Your task to perform on an android device: toggle javascript in the chrome app Image 0: 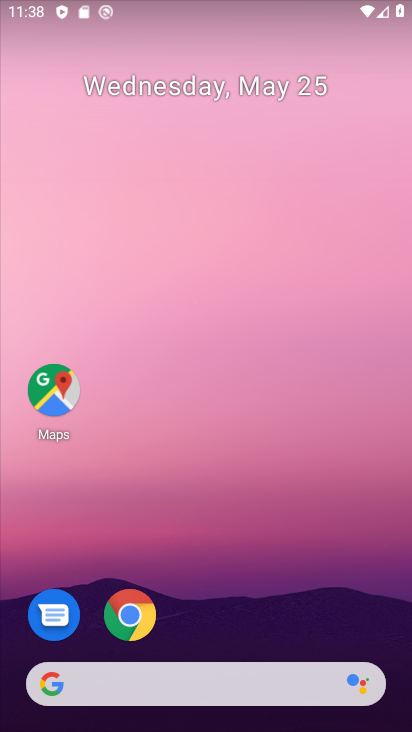
Step 0: drag from (387, 642) to (296, 17)
Your task to perform on an android device: toggle javascript in the chrome app Image 1: 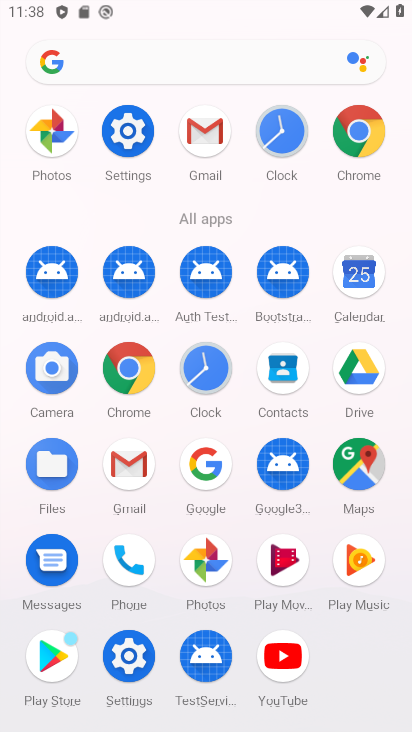
Step 1: click (368, 122)
Your task to perform on an android device: toggle javascript in the chrome app Image 2: 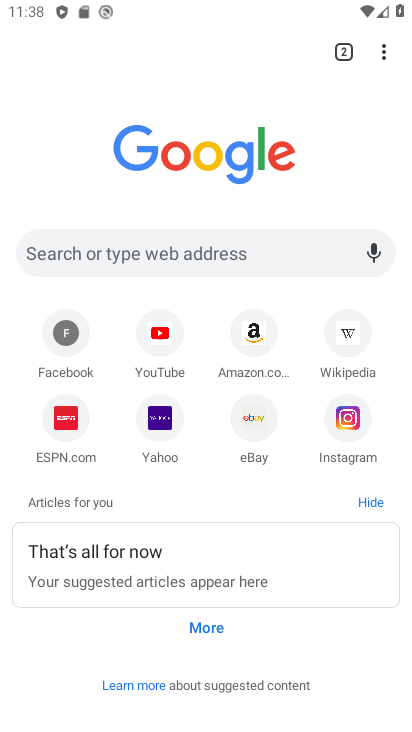
Step 2: click (382, 49)
Your task to perform on an android device: toggle javascript in the chrome app Image 3: 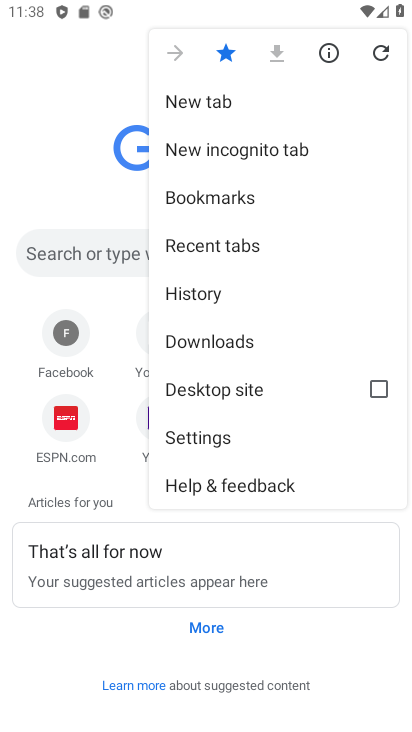
Step 3: click (230, 446)
Your task to perform on an android device: toggle javascript in the chrome app Image 4: 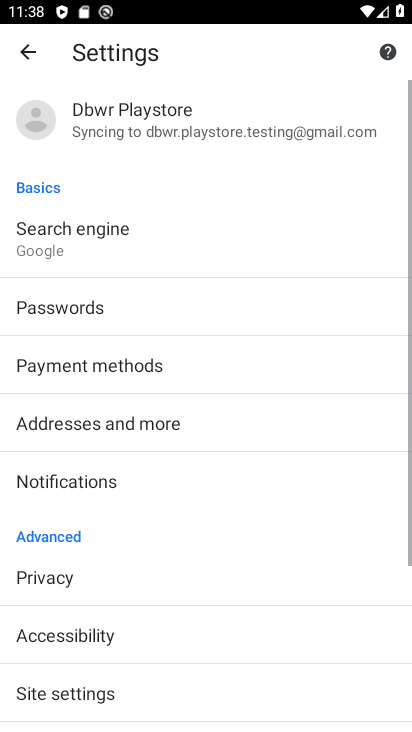
Step 4: click (70, 686)
Your task to perform on an android device: toggle javascript in the chrome app Image 5: 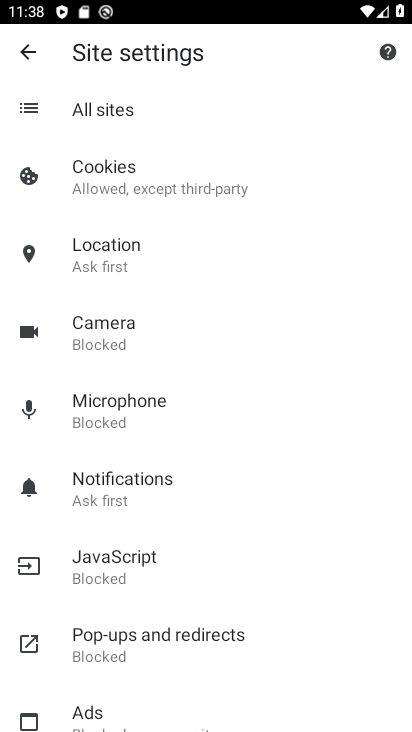
Step 5: click (211, 565)
Your task to perform on an android device: toggle javascript in the chrome app Image 6: 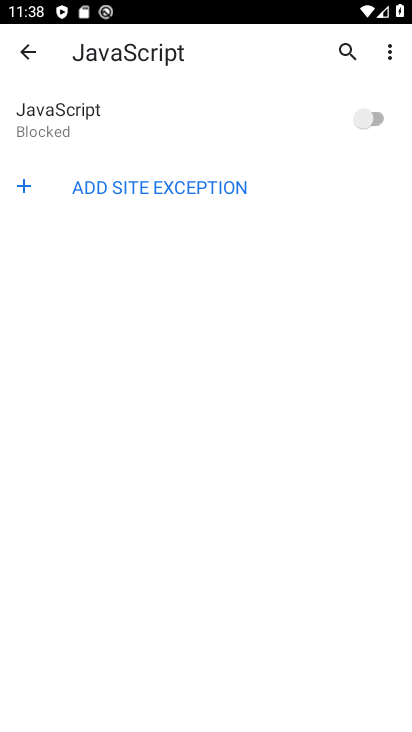
Step 6: click (365, 116)
Your task to perform on an android device: toggle javascript in the chrome app Image 7: 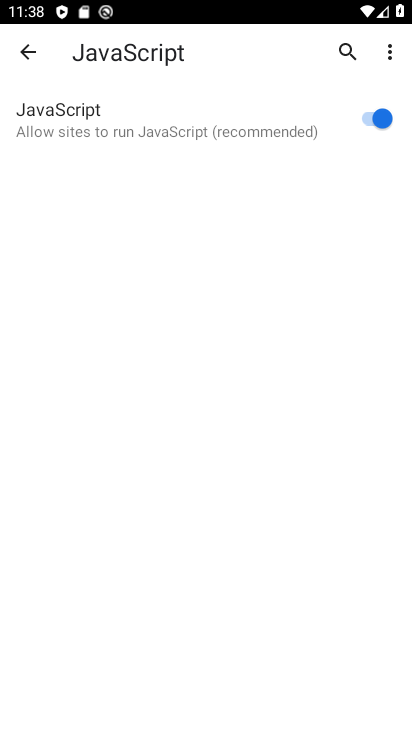
Step 7: task complete